Your task to perform on an android device: empty trash in the gmail app Image 0: 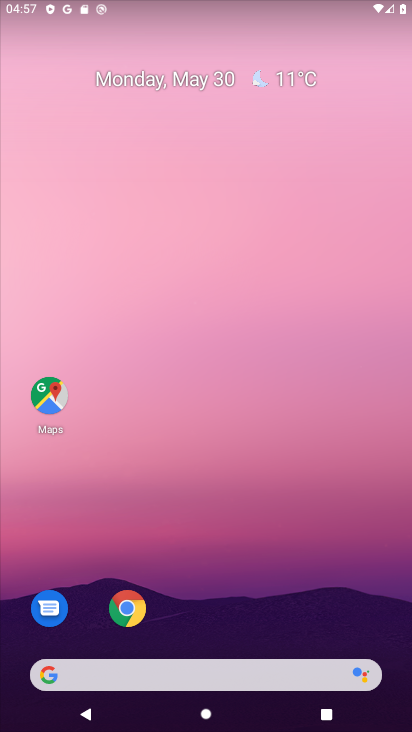
Step 0: click (171, 384)
Your task to perform on an android device: empty trash in the gmail app Image 1: 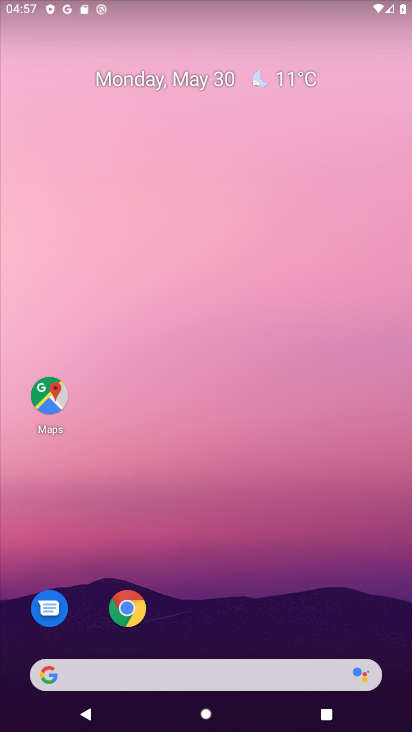
Step 1: drag from (274, 449) to (248, 269)
Your task to perform on an android device: empty trash in the gmail app Image 2: 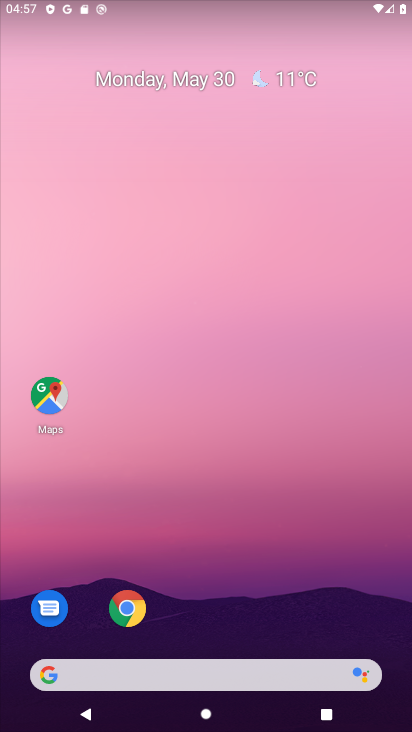
Step 2: drag from (256, 261) to (258, 214)
Your task to perform on an android device: empty trash in the gmail app Image 3: 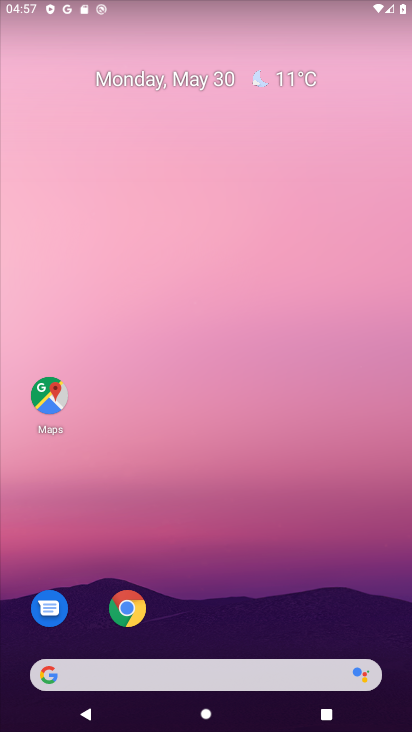
Step 3: drag from (214, 468) to (213, 240)
Your task to perform on an android device: empty trash in the gmail app Image 4: 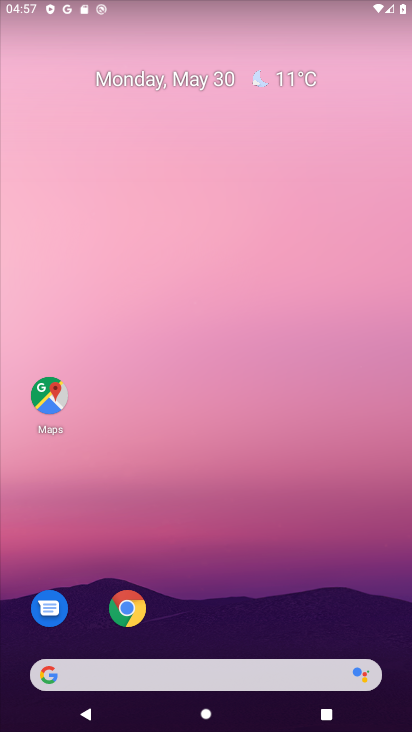
Step 4: drag from (202, 636) to (195, 229)
Your task to perform on an android device: empty trash in the gmail app Image 5: 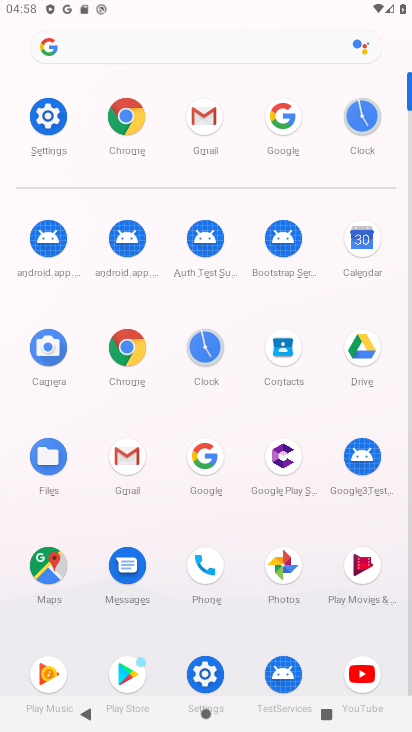
Step 5: click (202, 132)
Your task to perform on an android device: empty trash in the gmail app Image 6: 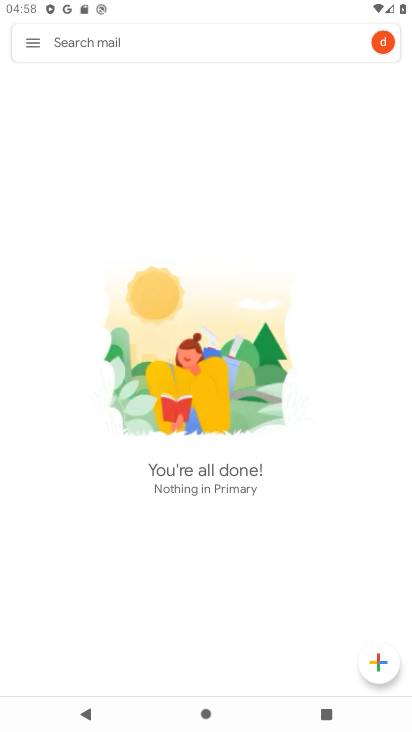
Step 6: click (33, 39)
Your task to perform on an android device: empty trash in the gmail app Image 7: 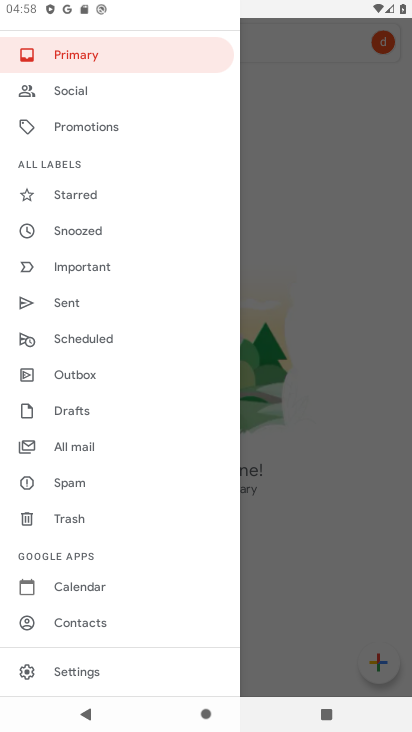
Step 7: click (74, 515)
Your task to perform on an android device: empty trash in the gmail app Image 8: 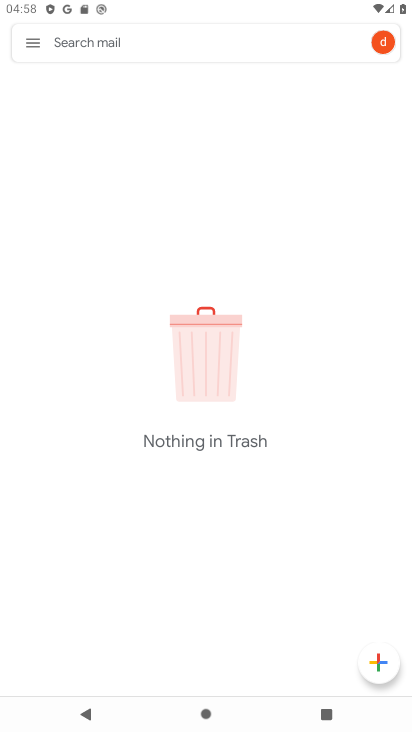
Step 8: task complete